Your task to perform on an android device: turn off wifi Image 0: 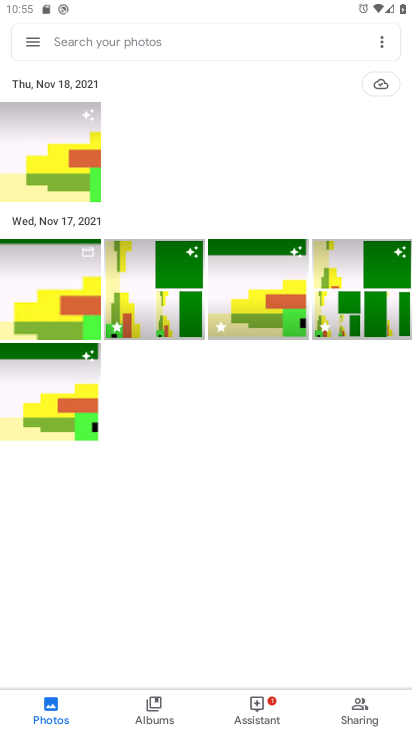
Step 0: press home button
Your task to perform on an android device: turn off wifi Image 1: 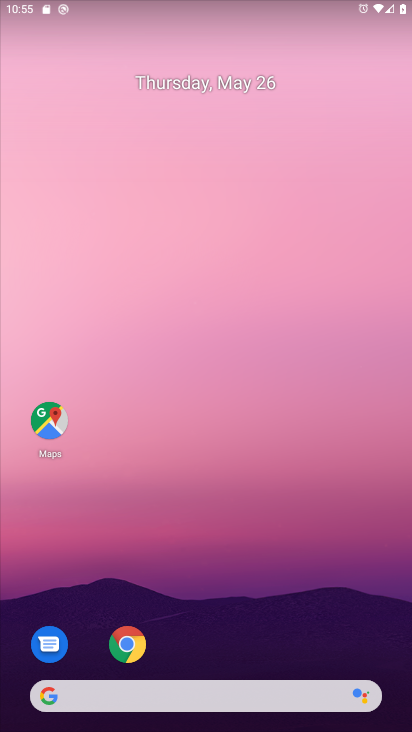
Step 1: drag from (369, 637) to (359, 170)
Your task to perform on an android device: turn off wifi Image 2: 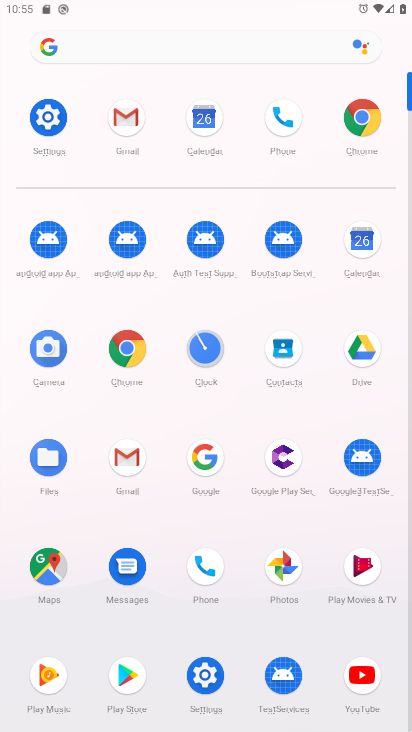
Step 2: click (214, 686)
Your task to perform on an android device: turn off wifi Image 3: 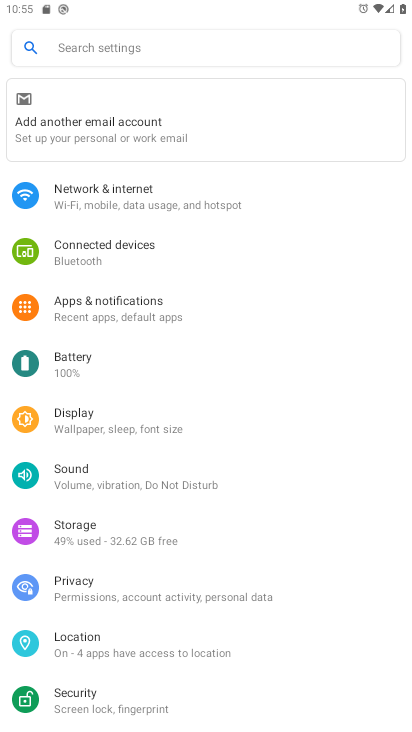
Step 3: drag from (309, 552) to (320, 431)
Your task to perform on an android device: turn off wifi Image 4: 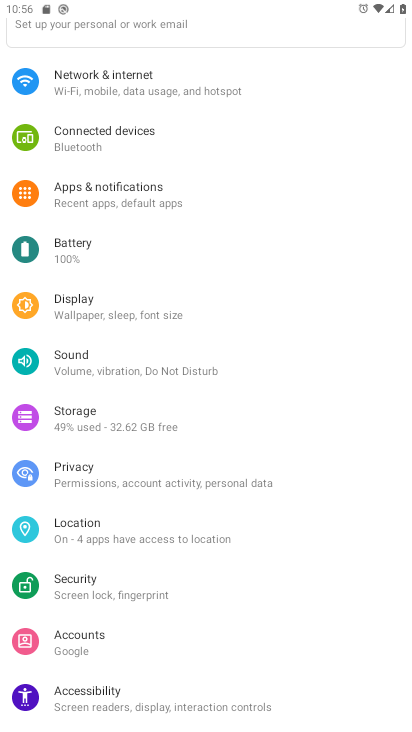
Step 4: drag from (318, 619) to (323, 464)
Your task to perform on an android device: turn off wifi Image 5: 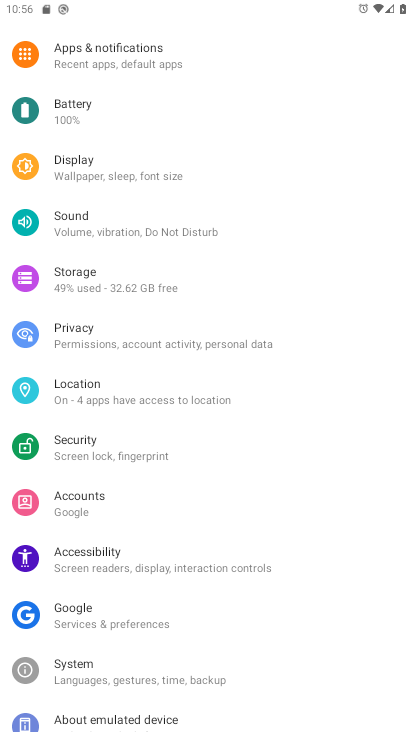
Step 5: drag from (322, 606) to (321, 468)
Your task to perform on an android device: turn off wifi Image 6: 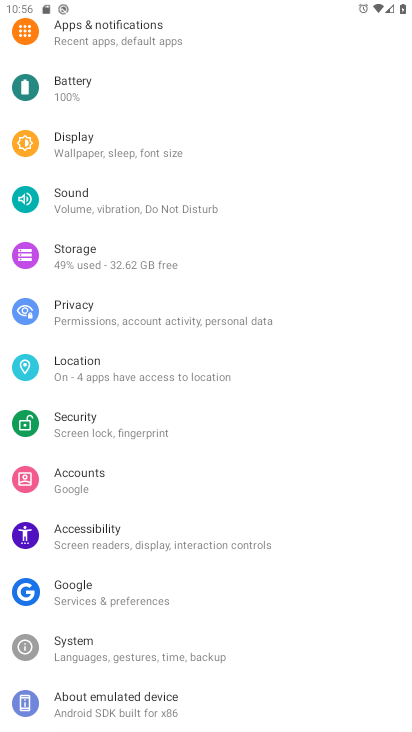
Step 6: drag from (327, 366) to (333, 466)
Your task to perform on an android device: turn off wifi Image 7: 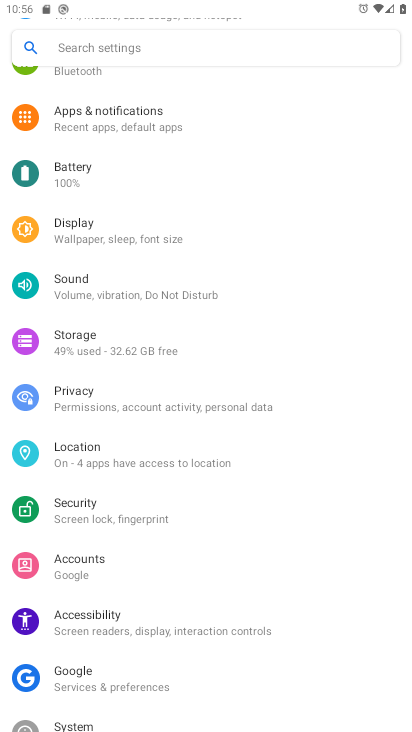
Step 7: drag from (331, 332) to (335, 425)
Your task to perform on an android device: turn off wifi Image 8: 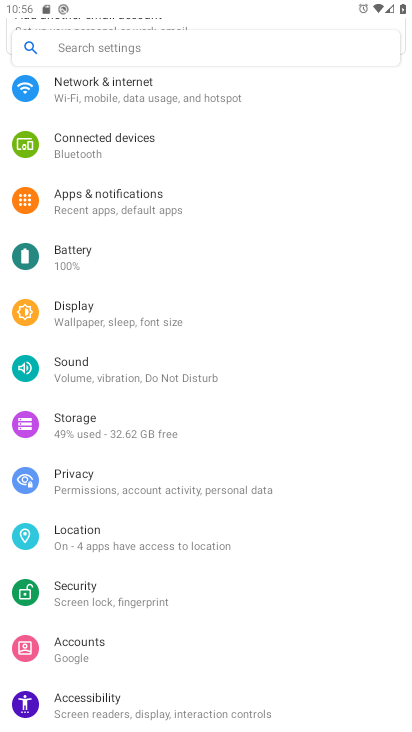
Step 8: drag from (332, 288) to (327, 396)
Your task to perform on an android device: turn off wifi Image 9: 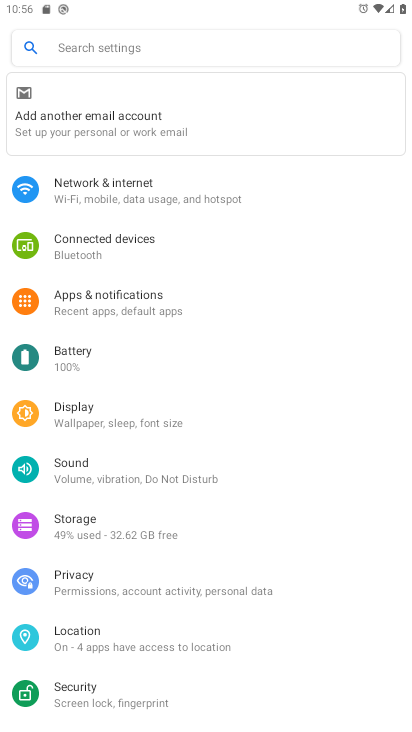
Step 9: drag from (316, 264) to (309, 373)
Your task to perform on an android device: turn off wifi Image 10: 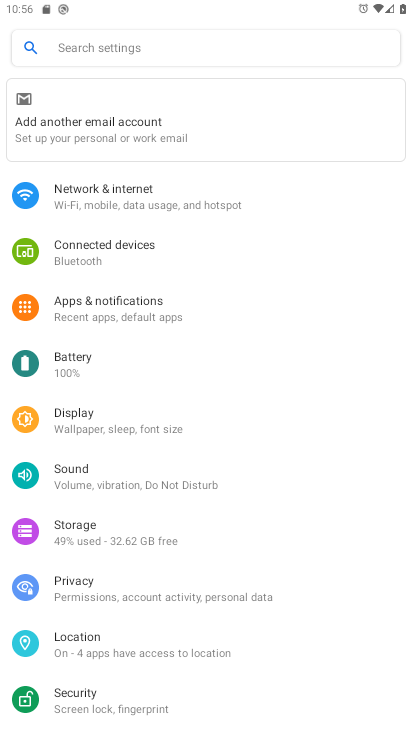
Step 10: click (234, 208)
Your task to perform on an android device: turn off wifi Image 11: 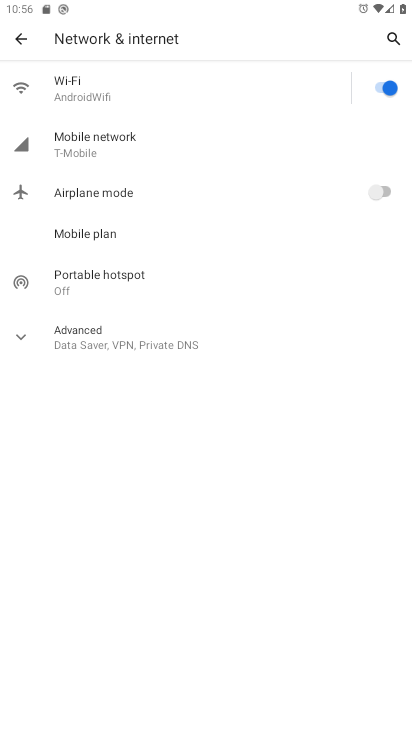
Step 11: click (384, 81)
Your task to perform on an android device: turn off wifi Image 12: 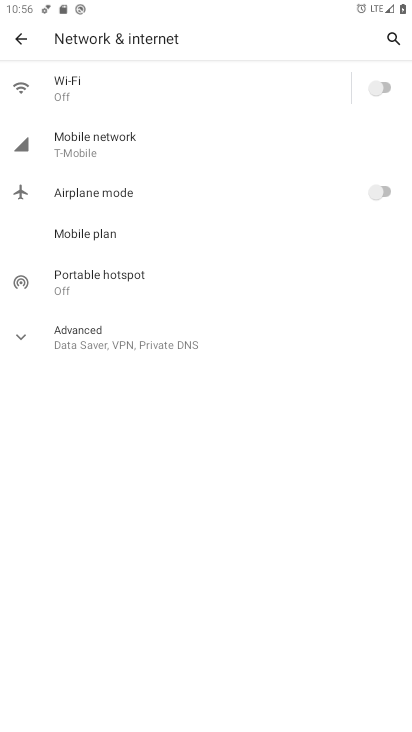
Step 12: task complete